Your task to perform on an android device: Search for Mexican restaurants on Maps Image 0: 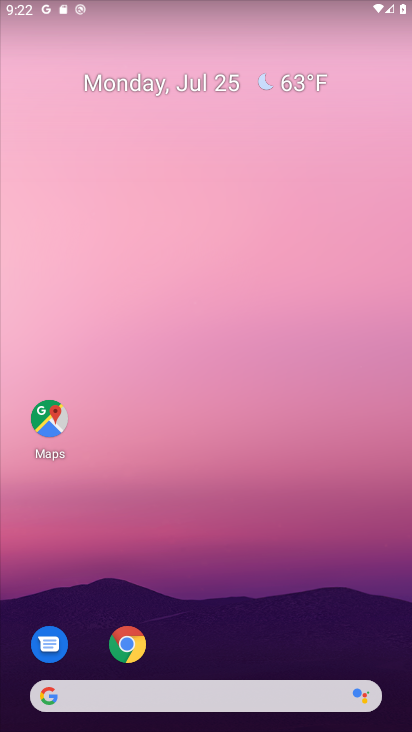
Step 0: drag from (189, 677) to (142, 25)
Your task to perform on an android device: Search for Mexican restaurants on Maps Image 1: 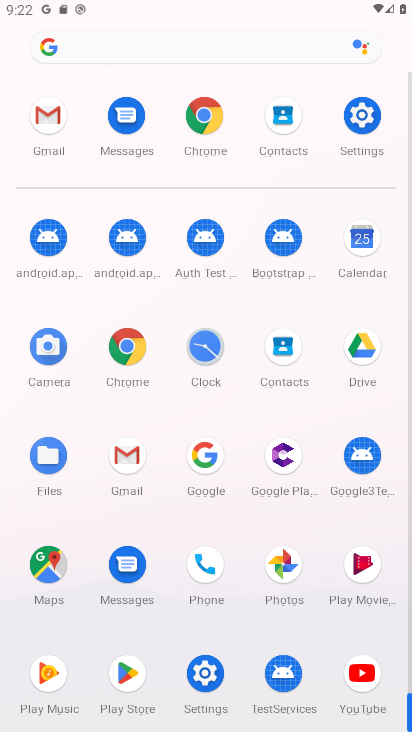
Step 1: click (47, 558)
Your task to perform on an android device: Search for Mexican restaurants on Maps Image 2: 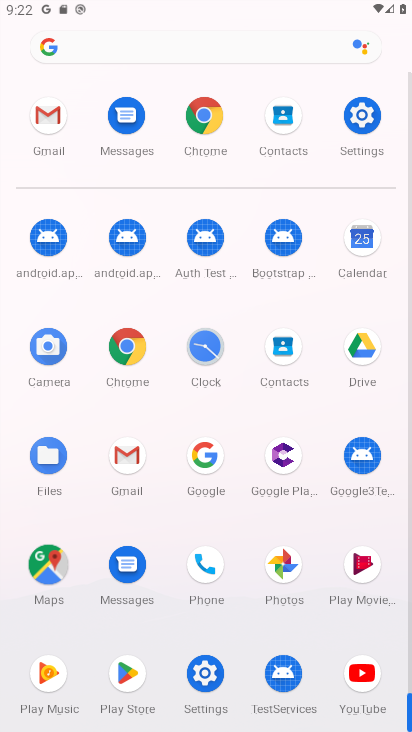
Step 2: click (38, 566)
Your task to perform on an android device: Search for Mexican restaurants on Maps Image 3: 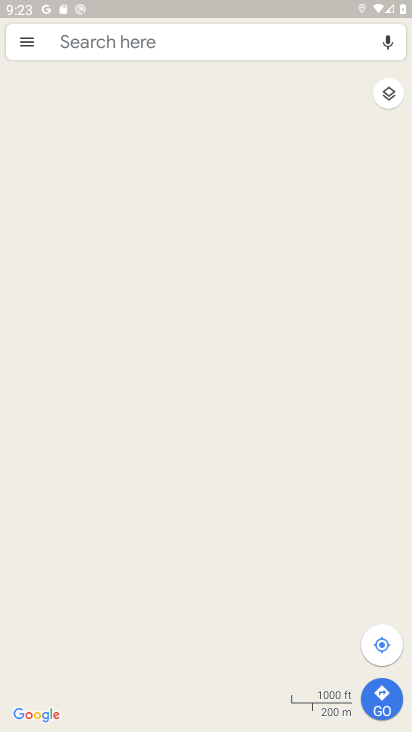
Step 3: click (102, 39)
Your task to perform on an android device: Search for Mexican restaurants on Maps Image 4: 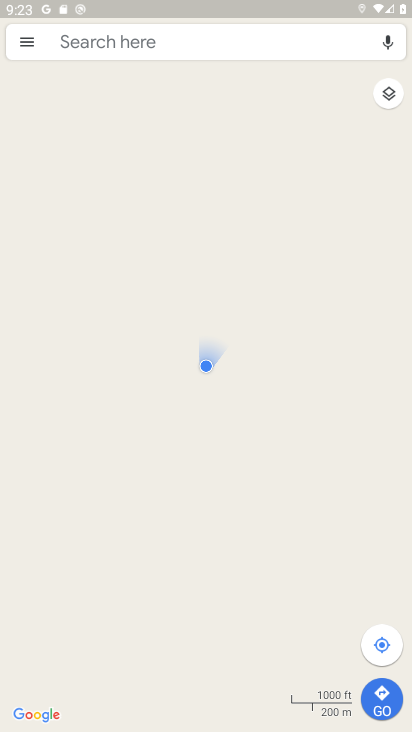
Step 4: click (102, 38)
Your task to perform on an android device: Search for Mexican restaurants on Maps Image 5: 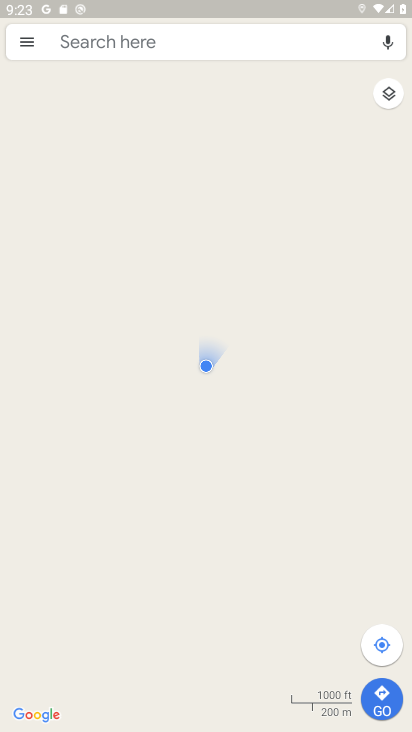
Step 5: click (102, 38)
Your task to perform on an android device: Search for Mexican restaurants on Maps Image 6: 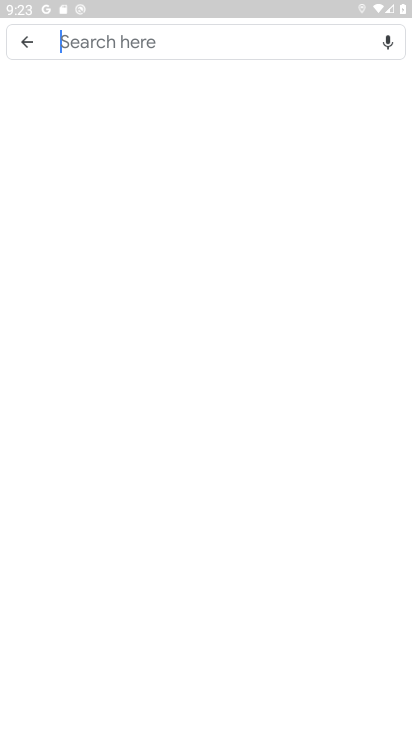
Step 6: click (104, 38)
Your task to perform on an android device: Search for Mexican restaurants on Maps Image 7: 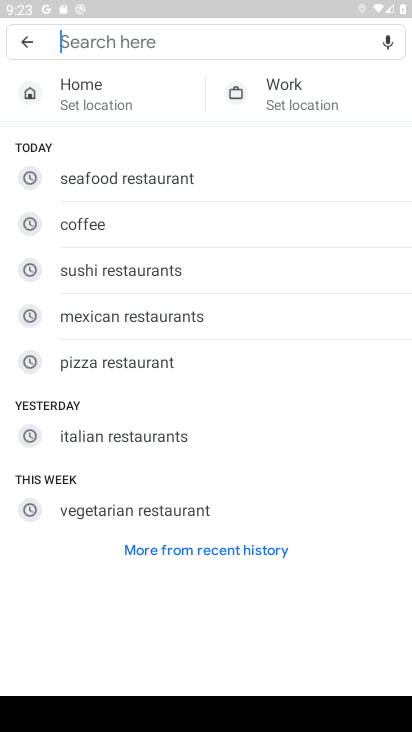
Step 7: type "mexican restaurants"
Your task to perform on an android device: Search for Mexican restaurants on Maps Image 8: 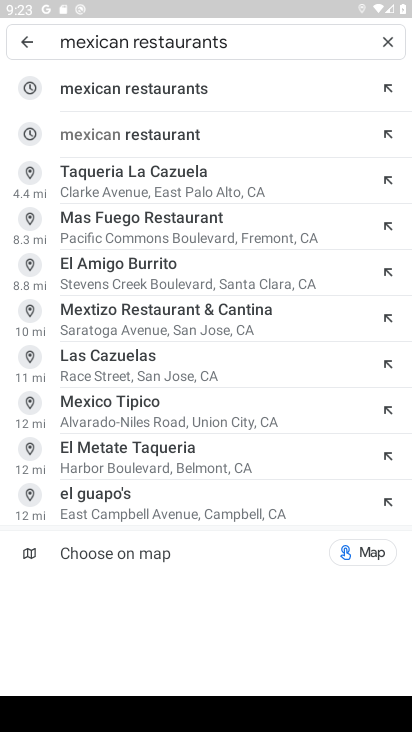
Step 8: click (170, 103)
Your task to perform on an android device: Search for Mexican restaurants on Maps Image 9: 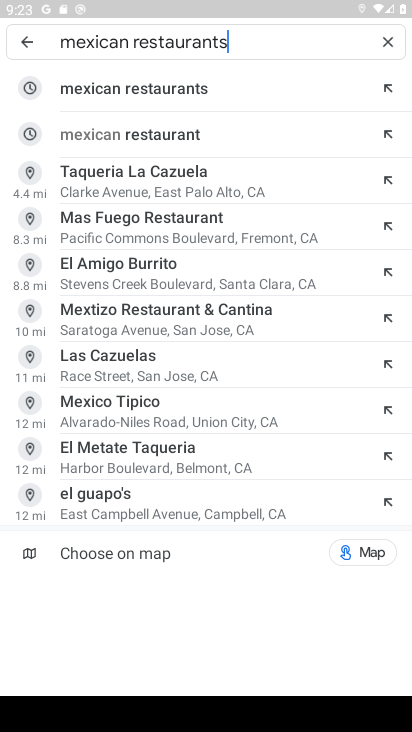
Step 9: click (170, 87)
Your task to perform on an android device: Search for Mexican restaurants on Maps Image 10: 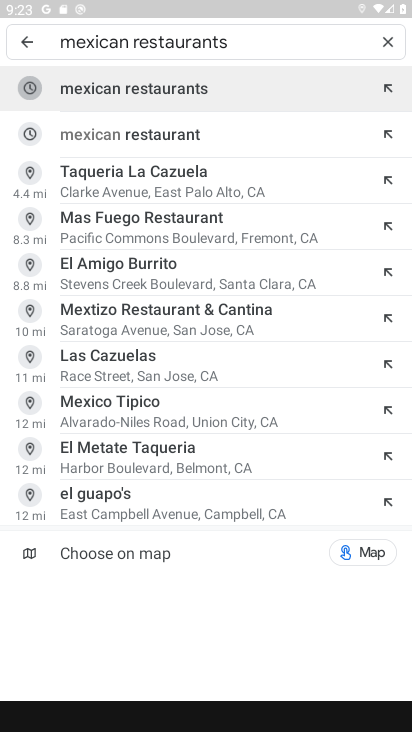
Step 10: click (174, 86)
Your task to perform on an android device: Search for Mexican restaurants on Maps Image 11: 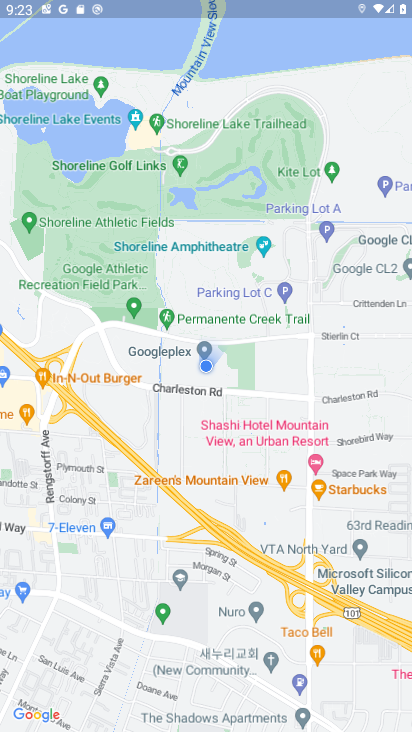
Step 11: task complete